Your task to perform on an android device: empty trash in the gmail app Image 0: 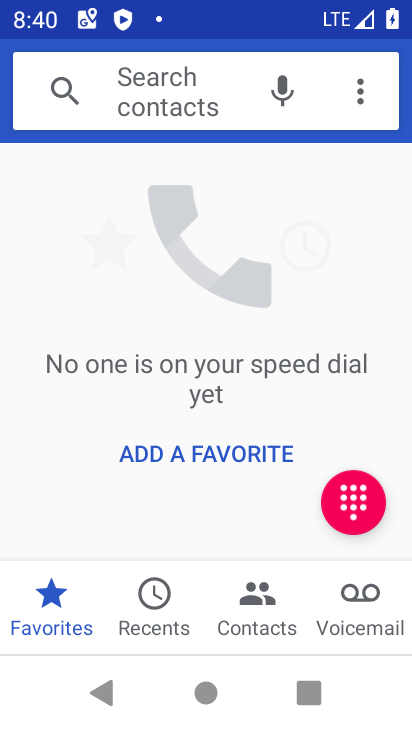
Step 0: press home button
Your task to perform on an android device: empty trash in the gmail app Image 1: 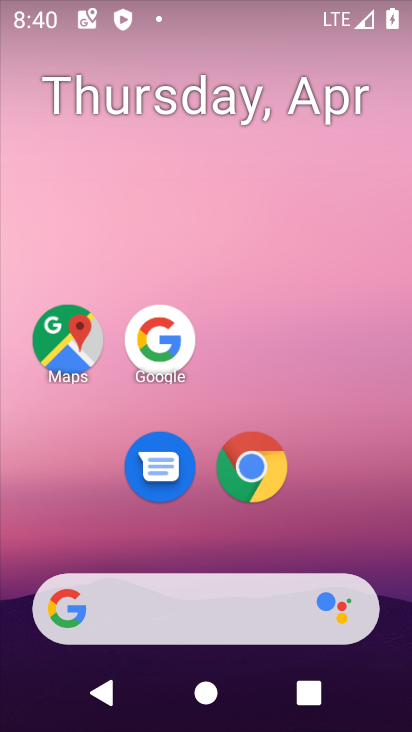
Step 1: drag from (156, 589) to (176, 203)
Your task to perform on an android device: empty trash in the gmail app Image 2: 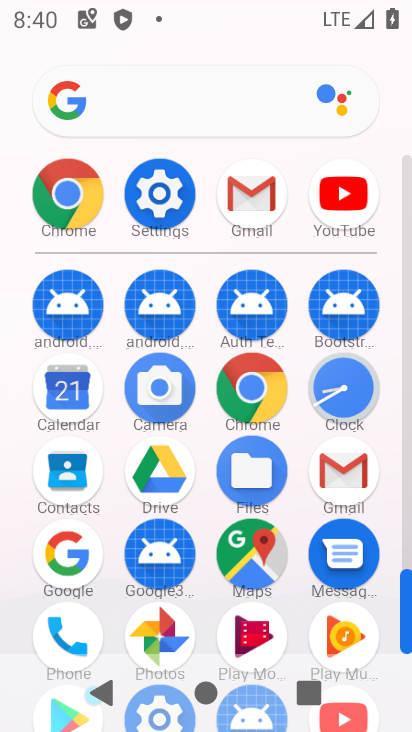
Step 2: click (243, 203)
Your task to perform on an android device: empty trash in the gmail app Image 3: 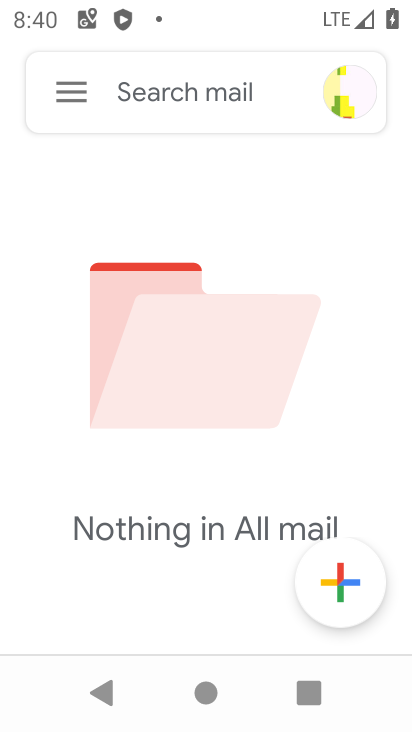
Step 3: click (61, 102)
Your task to perform on an android device: empty trash in the gmail app Image 4: 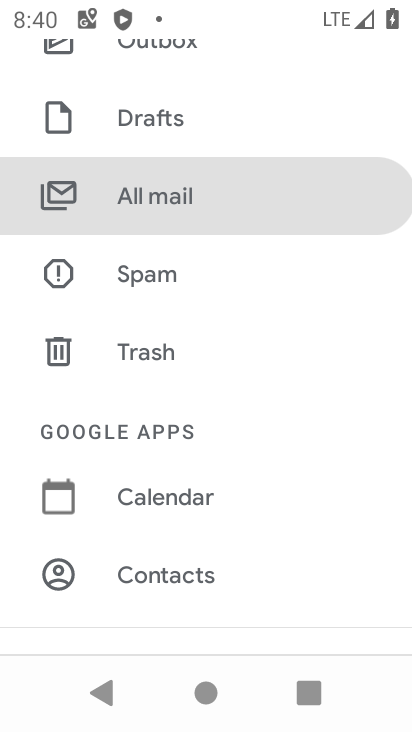
Step 4: click (106, 345)
Your task to perform on an android device: empty trash in the gmail app Image 5: 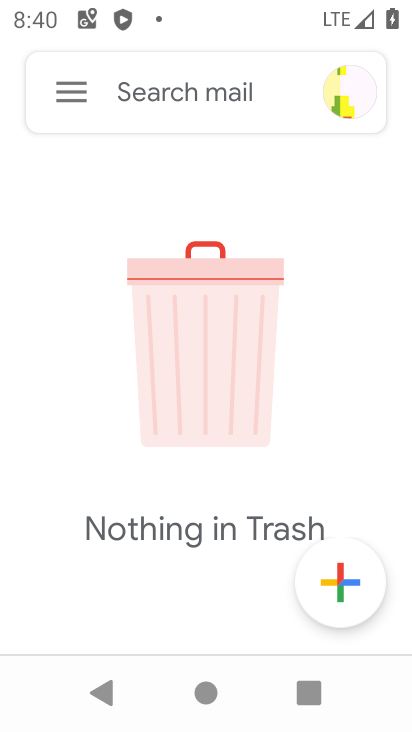
Step 5: task complete